Your task to perform on an android device: turn on notifications settings in the gmail app Image 0: 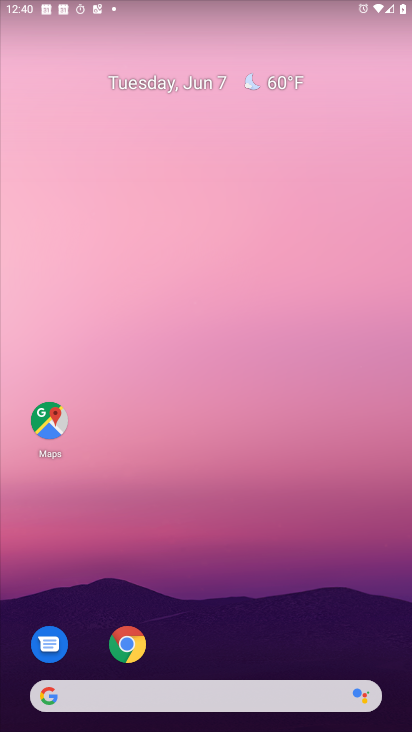
Step 0: drag from (145, 731) to (103, 66)
Your task to perform on an android device: turn on notifications settings in the gmail app Image 1: 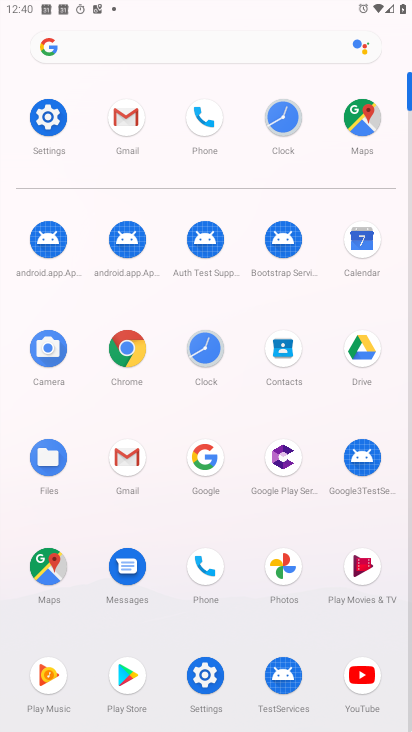
Step 1: click (121, 130)
Your task to perform on an android device: turn on notifications settings in the gmail app Image 2: 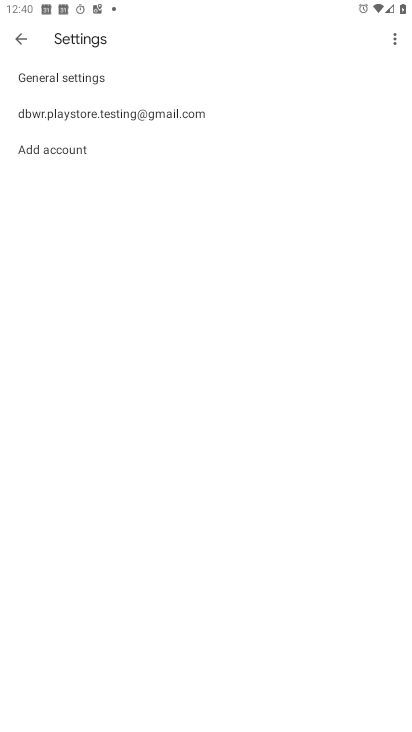
Step 2: click (121, 130)
Your task to perform on an android device: turn on notifications settings in the gmail app Image 3: 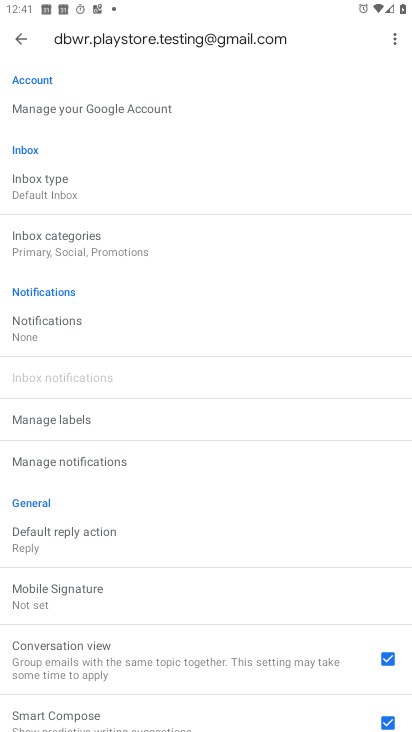
Step 3: click (73, 466)
Your task to perform on an android device: turn on notifications settings in the gmail app Image 4: 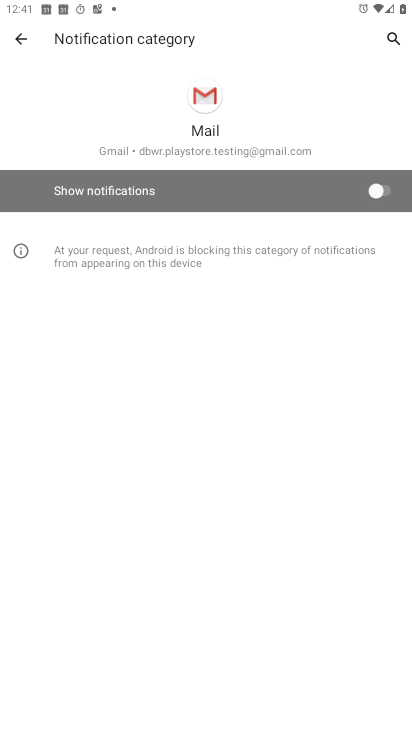
Step 4: click (385, 199)
Your task to perform on an android device: turn on notifications settings in the gmail app Image 5: 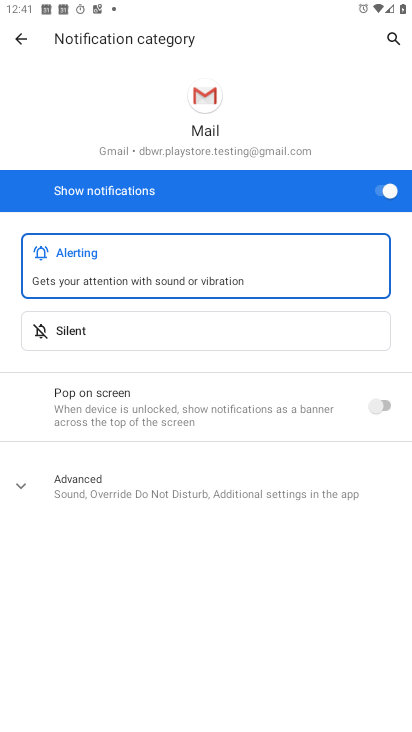
Step 5: click (23, 45)
Your task to perform on an android device: turn on notifications settings in the gmail app Image 6: 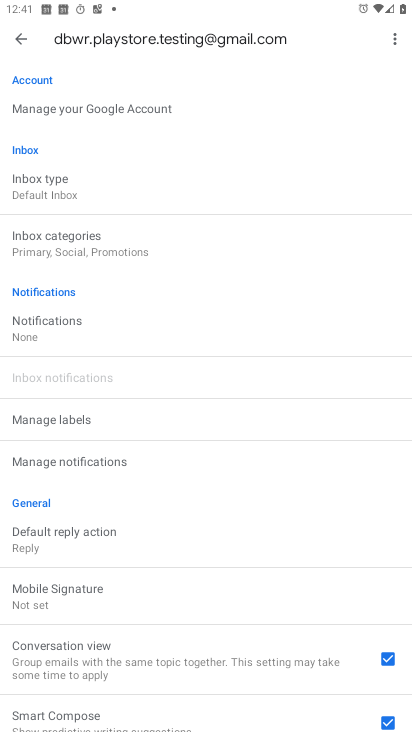
Step 6: task complete